Your task to perform on an android device: toggle show notifications on the lock screen Image 0: 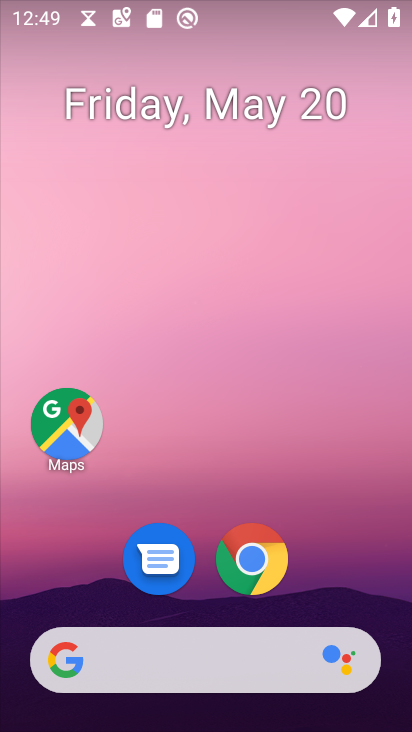
Step 0: drag from (345, 602) to (322, 168)
Your task to perform on an android device: toggle show notifications on the lock screen Image 1: 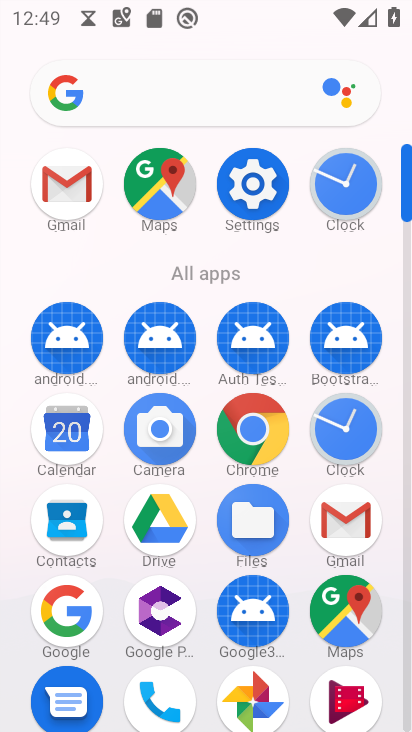
Step 1: click (278, 202)
Your task to perform on an android device: toggle show notifications on the lock screen Image 2: 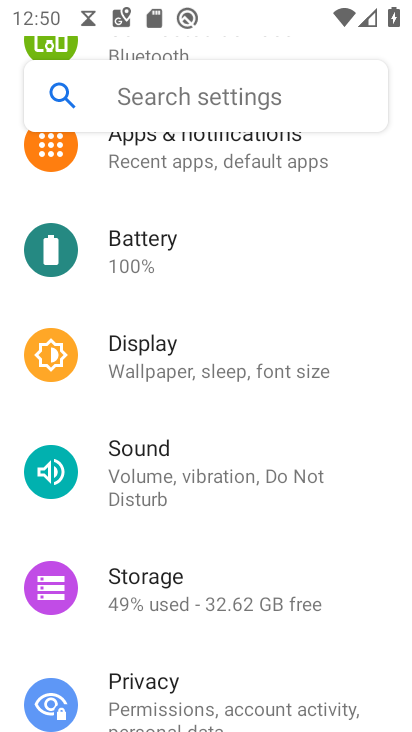
Step 2: click (236, 152)
Your task to perform on an android device: toggle show notifications on the lock screen Image 3: 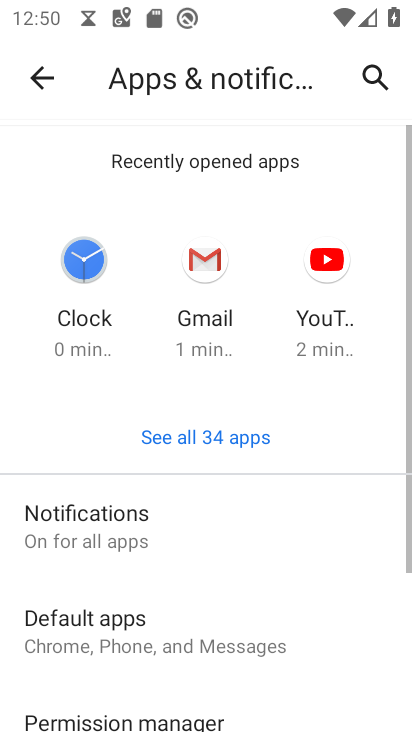
Step 3: click (146, 523)
Your task to perform on an android device: toggle show notifications on the lock screen Image 4: 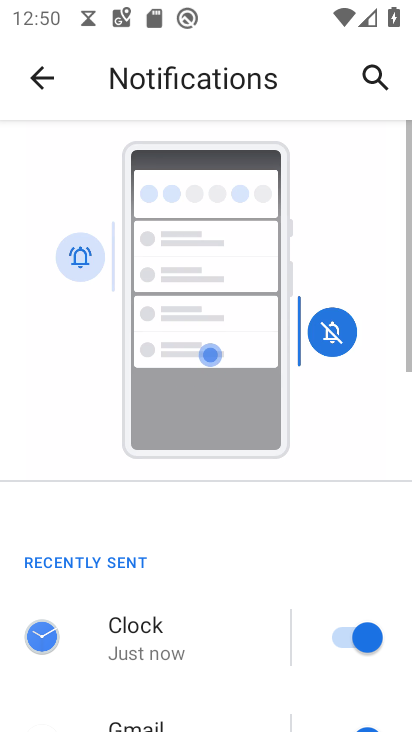
Step 4: drag from (194, 660) to (233, 171)
Your task to perform on an android device: toggle show notifications on the lock screen Image 5: 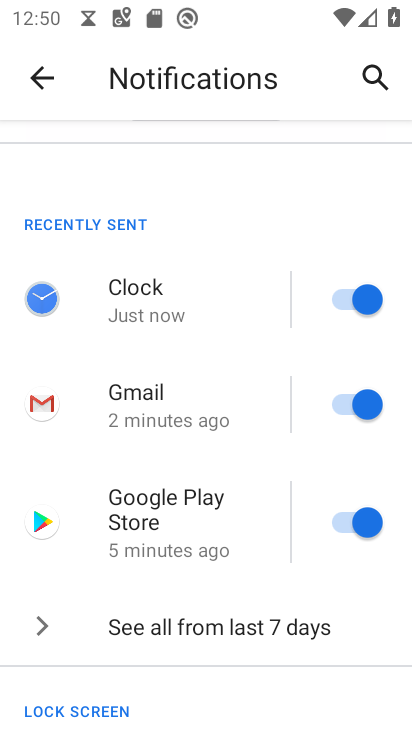
Step 5: drag from (203, 577) to (228, 250)
Your task to perform on an android device: toggle show notifications on the lock screen Image 6: 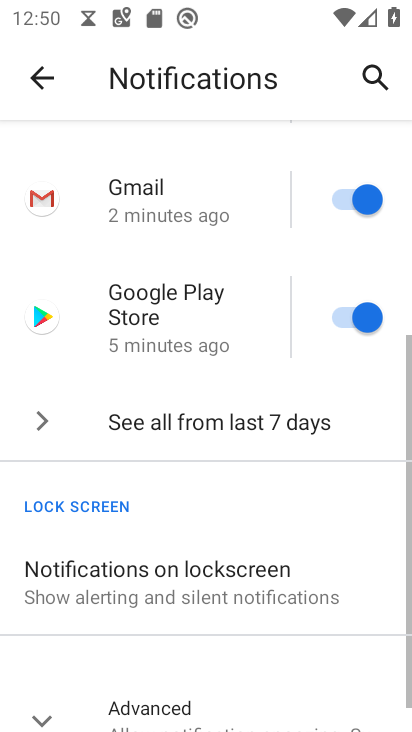
Step 6: click (157, 591)
Your task to perform on an android device: toggle show notifications on the lock screen Image 7: 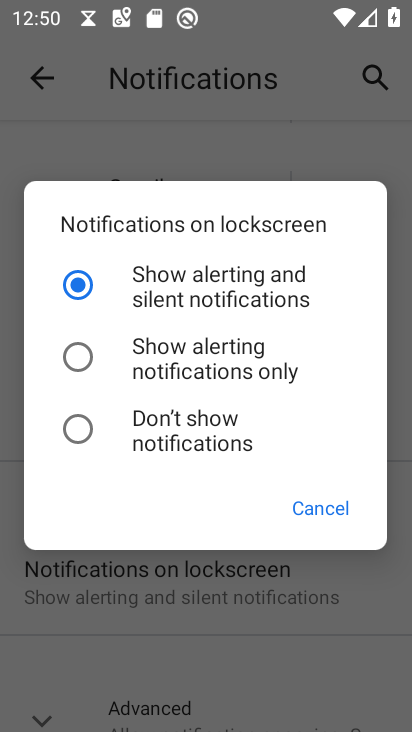
Step 7: click (160, 364)
Your task to perform on an android device: toggle show notifications on the lock screen Image 8: 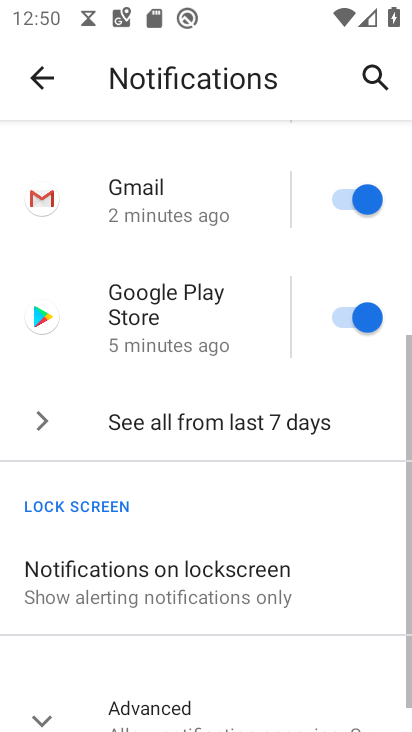
Step 8: task complete